Your task to perform on an android device: change the upload size in google photos Image 0: 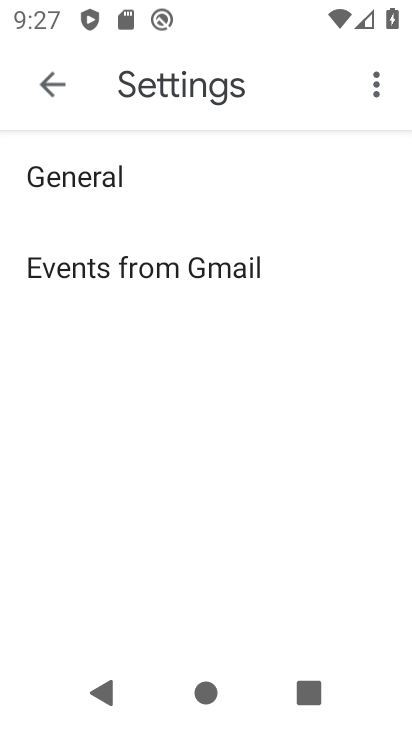
Step 0: press home button
Your task to perform on an android device: change the upload size in google photos Image 1: 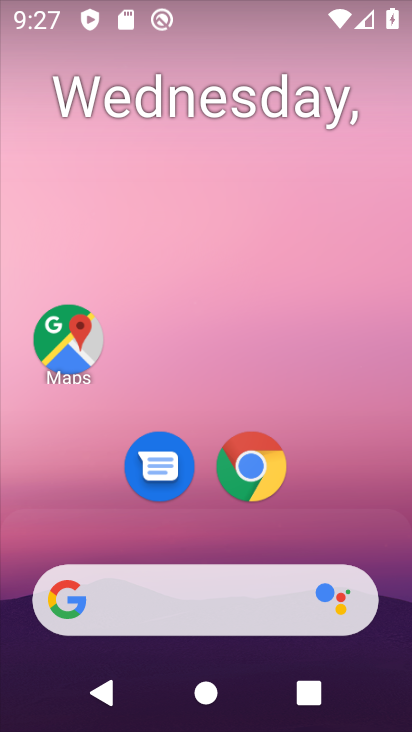
Step 1: drag from (335, 539) to (181, 120)
Your task to perform on an android device: change the upload size in google photos Image 2: 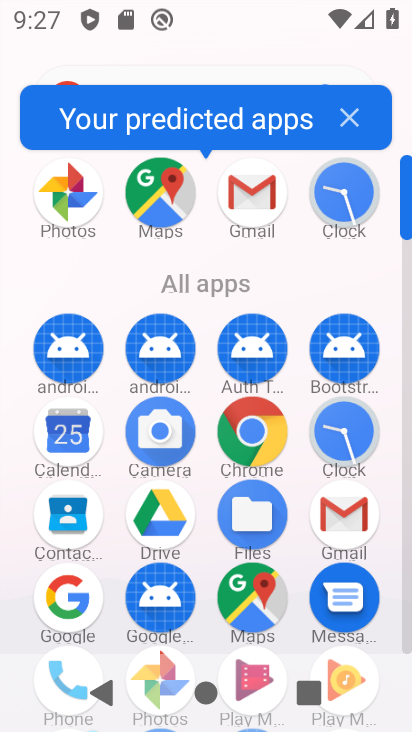
Step 2: click (76, 192)
Your task to perform on an android device: change the upload size in google photos Image 3: 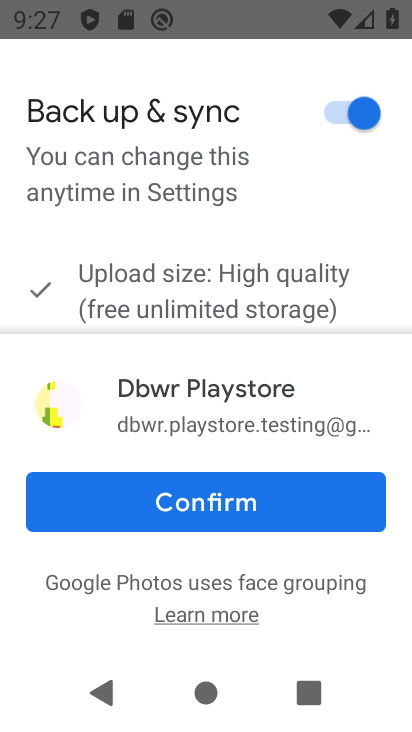
Step 3: click (152, 507)
Your task to perform on an android device: change the upload size in google photos Image 4: 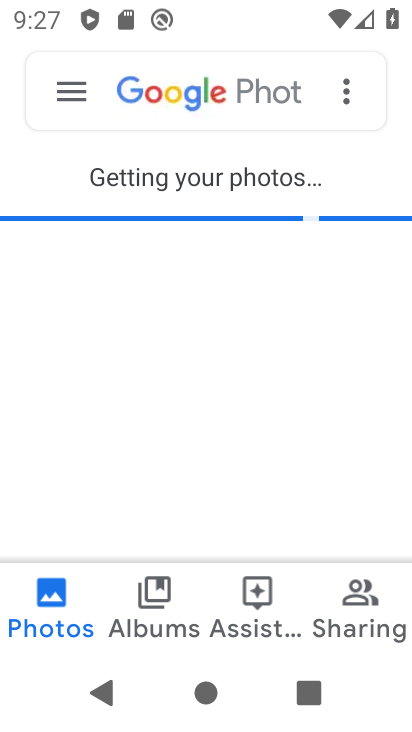
Step 4: click (55, 102)
Your task to perform on an android device: change the upload size in google photos Image 5: 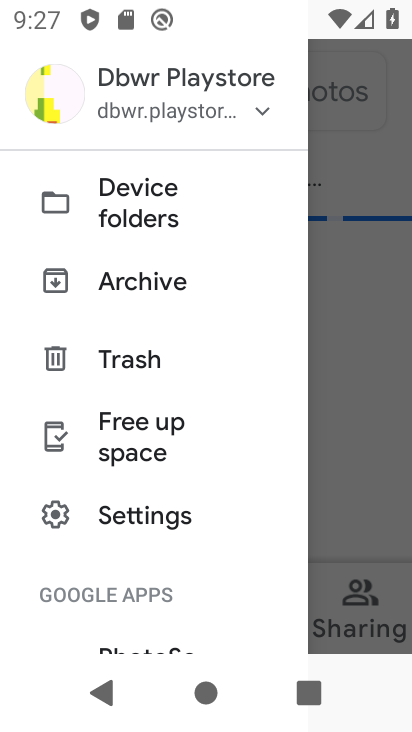
Step 5: click (97, 508)
Your task to perform on an android device: change the upload size in google photos Image 6: 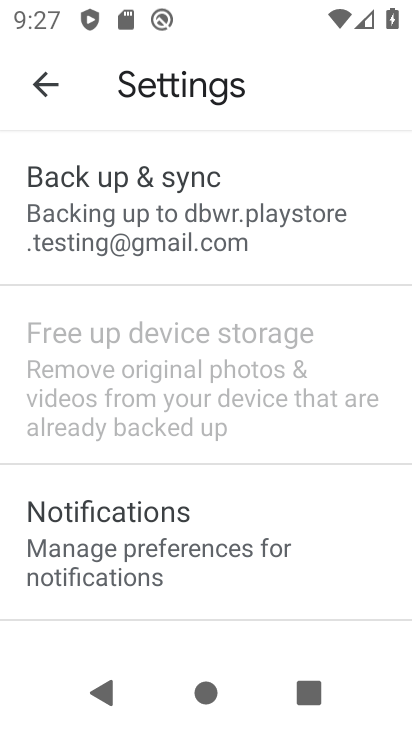
Step 6: click (128, 218)
Your task to perform on an android device: change the upload size in google photos Image 7: 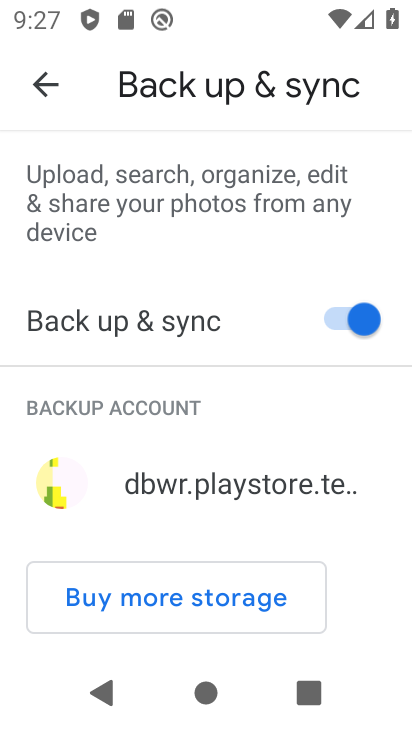
Step 7: drag from (164, 549) to (160, 198)
Your task to perform on an android device: change the upload size in google photos Image 8: 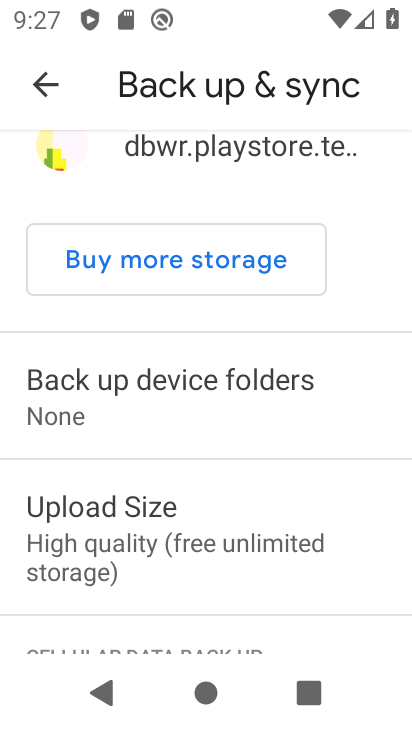
Step 8: click (92, 563)
Your task to perform on an android device: change the upload size in google photos Image 9: 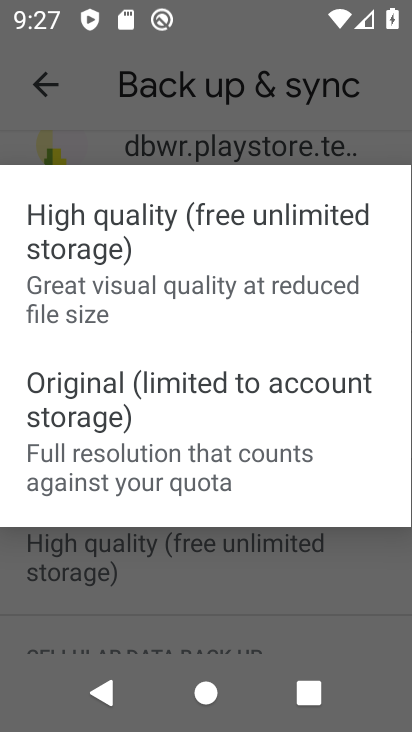
Step 9: click (108, 401)
Your task to perform on an android device: change the upload size in google photos Image 10: 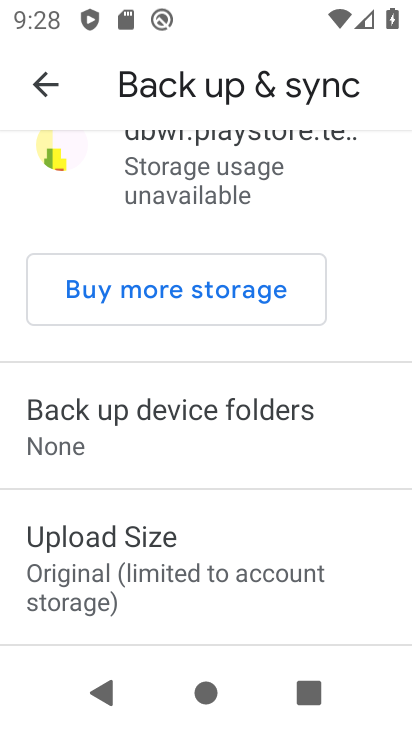
Step 10: task complete